Your task to perform on an android device: Open Google Chrome and open the bookmarks view Image 0: 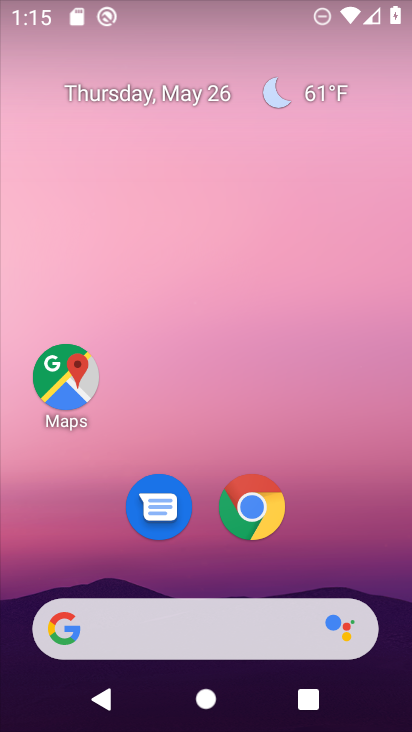
Step 0: click (286, 490)
Your task to perform on an android device: Open Google Chrome and open the bookmarks view Image 1: 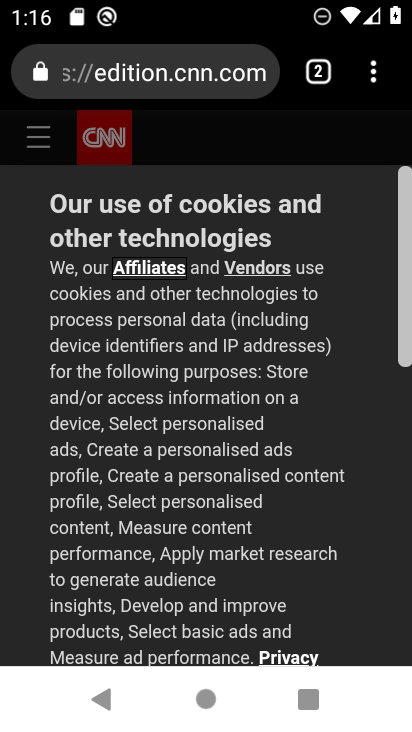
Step 1: click (378, 57)
Your task to perform on an android device: Open Google Chrome and open the bookmarks view Image 2: 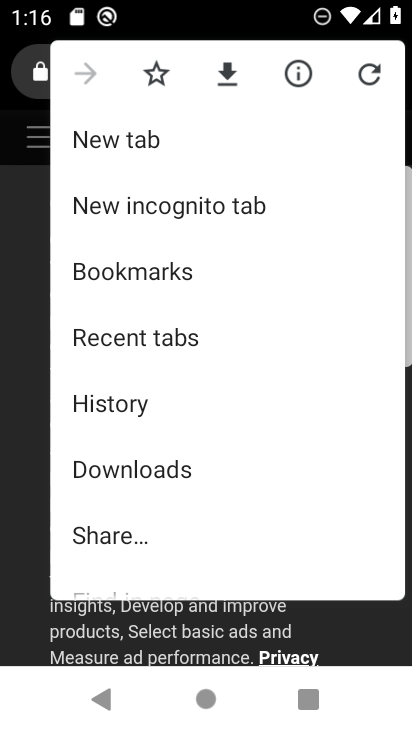
Step 2: click (234, 261)
Your task to perform on an android device: Open Google Chrome and open the bookmarks view Image 3: 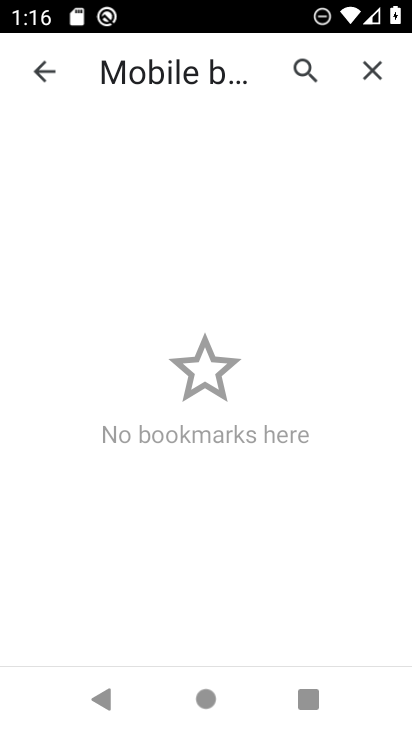
Step 3: task complete